Your task to perform on an android device: Show me recent news Image 0: 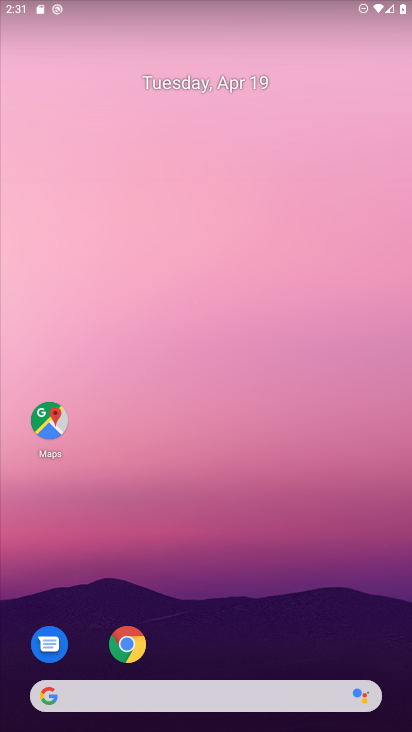
Step 0: drag from (171, 596) to (113, 171)
Your task to perform on an android device: Show me recent news Image 1: 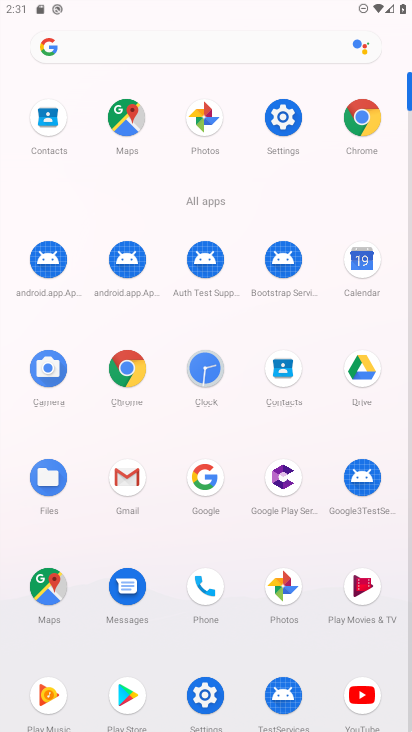
Step 1: click (366, 130)
Your task to perform on an android device: Show me recent news Image 2: 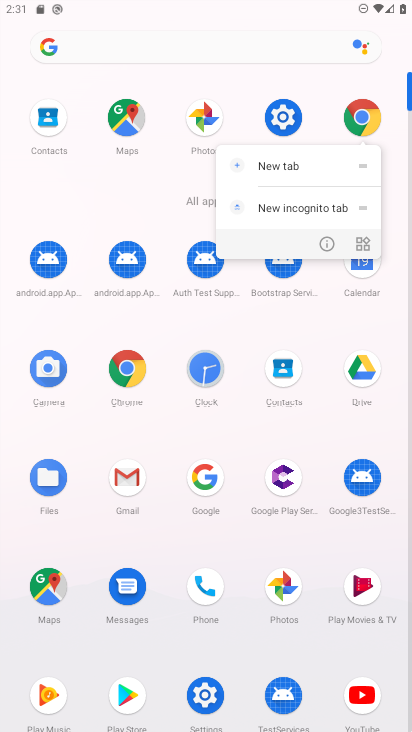
Step 2: click (366, 130)
Your task to perform on an android device: Show me recent news Image 3: 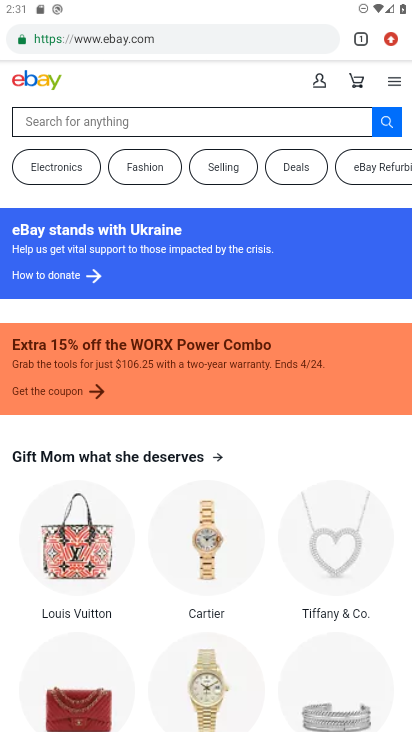
Step 3: click (360, 38)
Your task to perform on an android device: Show me recent news Image 4: 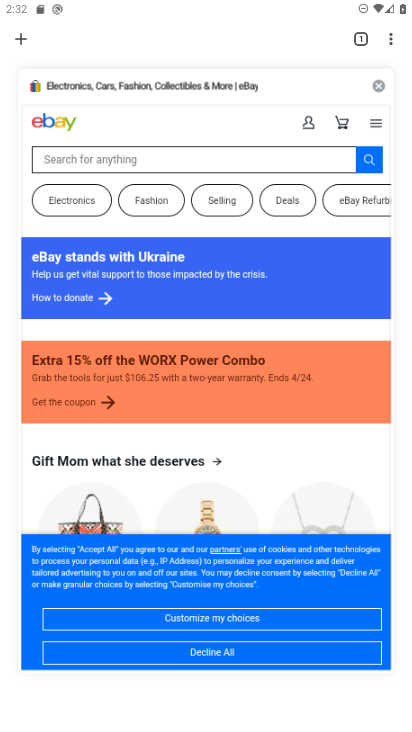
Step 4: click (17, 40)
Your task to perform on an android device: Show me recent news Image 5: 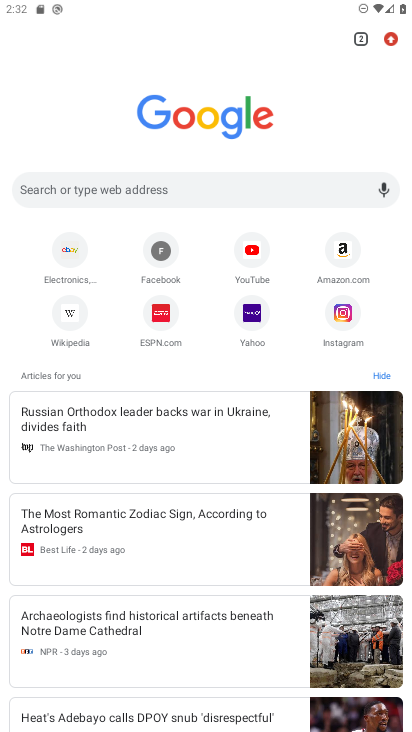
Step 5: click (101, 197)
Your task to perform on an android device: Show me recent news Image 6: 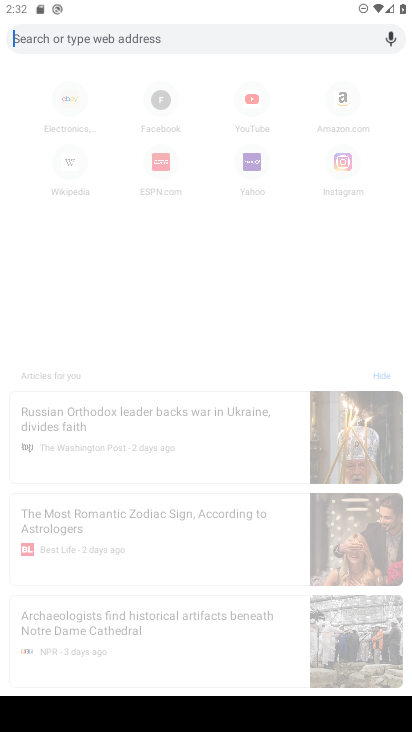
Step 6: type "recent news"
Your task to perform on an android device: Show me recent news Image 7: 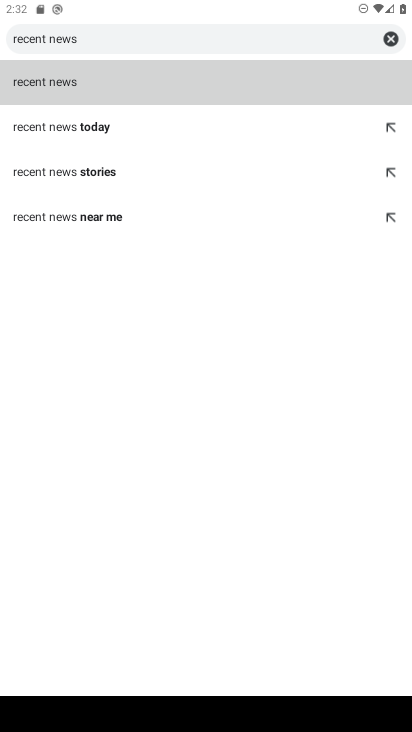
Step 7: click (76, 88)
Your task to perform on an android device: Show me recent news Image 8: 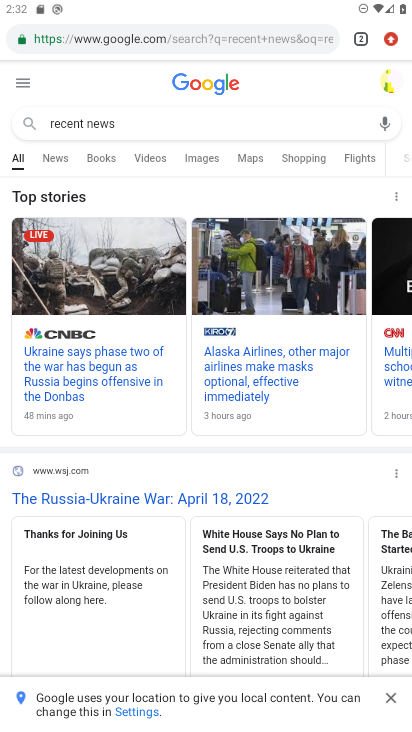
Step 8: click (51, 153)
Your task to perform on an android device: Show me recent news Image 9: 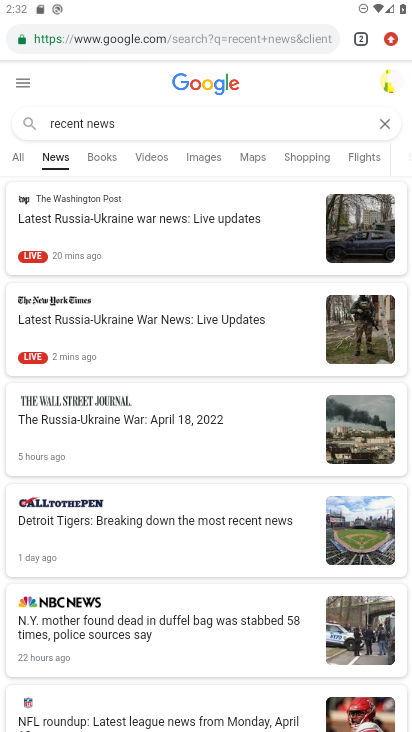
Step 9: task complete